Your task to perform on an android device: Open Amazon Image 0: 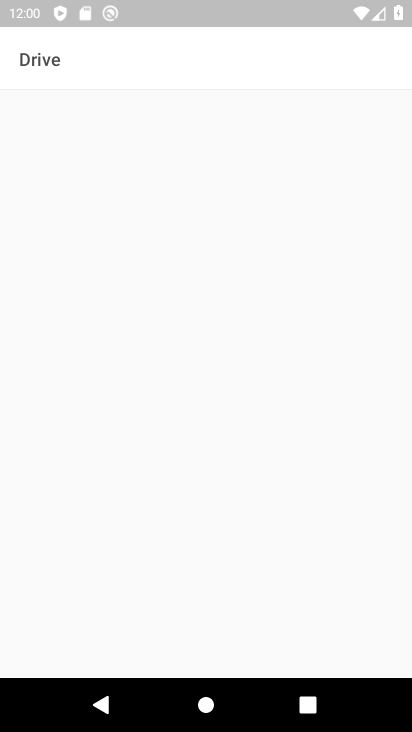
Step 0: press home button
Your task to perform on an android device: Open Amazon Image 1: 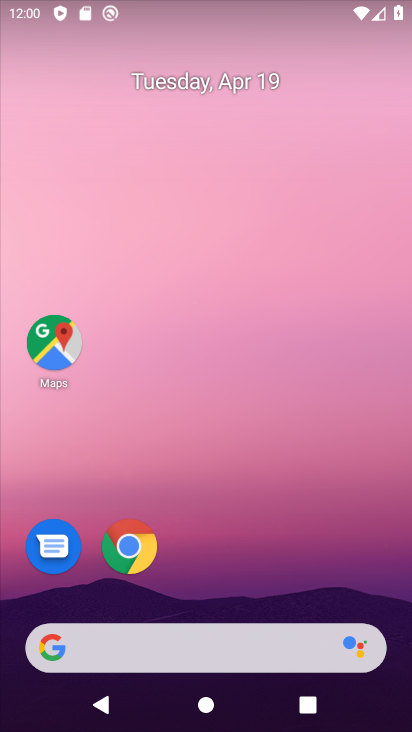
Step 1: click (126, 543)
Your task to perform on an android device: Open Amazon Image 2: 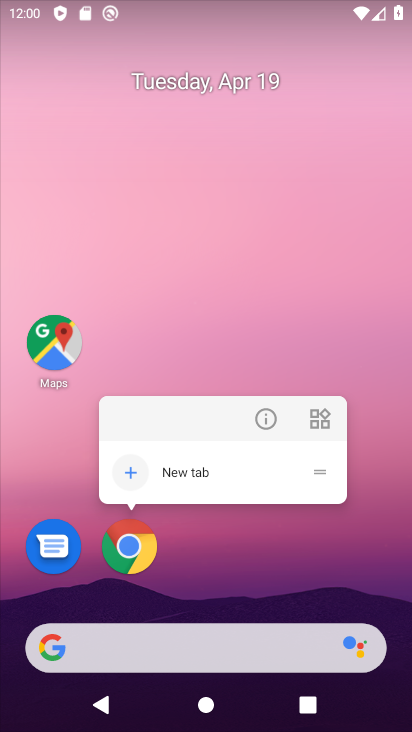
Step 2: drag from (177, 557) to (261, 86)
Your task to perform on an android device: Open Amazon Image 3: 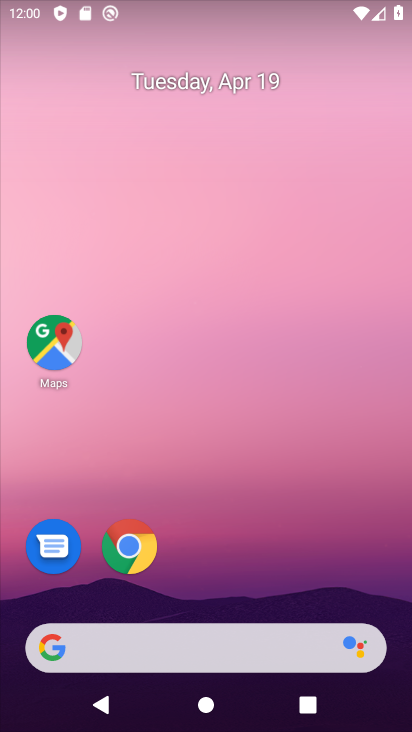
Step 3: drag from (239, 587) to (250, 5)
Your task to perform on an android device: Open Amazon Image 4: 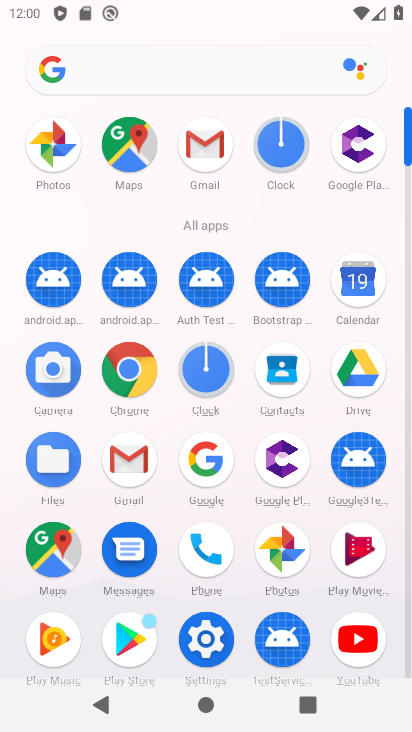
Step 4: click (128, 358)
Your task to perform on an android device: Open Amazon Image 5: 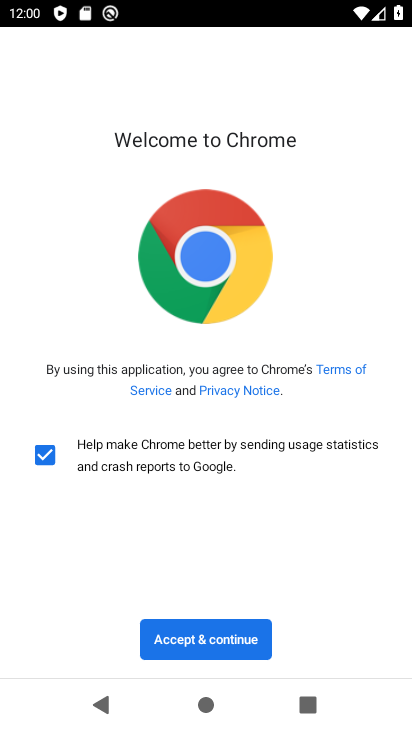
Step 5: click (208, 631)
Your task to perform on an android device: Open Amazon Image 6: 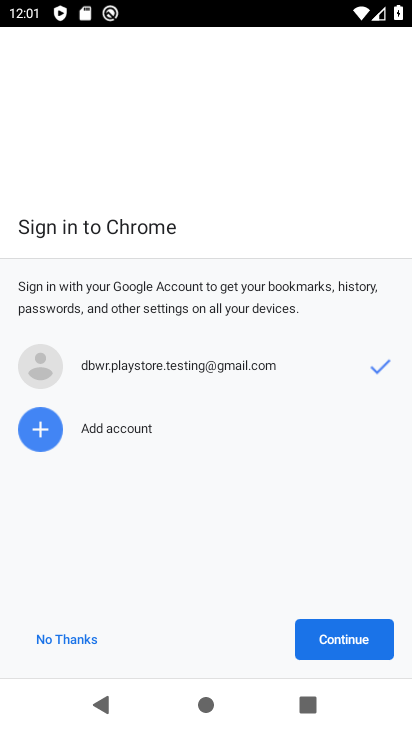
Step 6: click (338, 641)
Your task to perform on an android device: Open Amazon Image 7: 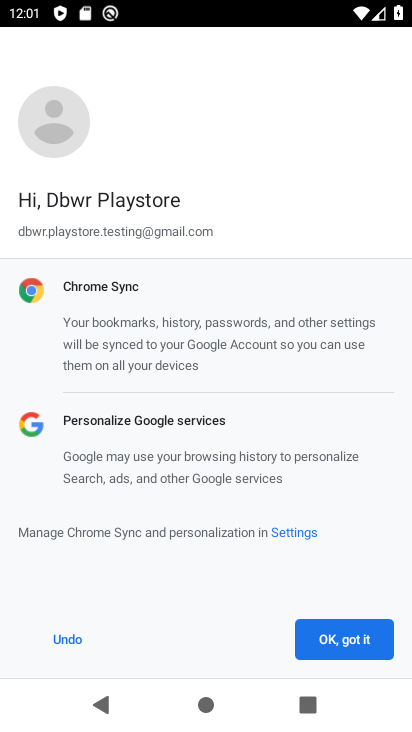
Step 7: click (347, 631)
Your task to perform on an android device: Open Amazon Image 8: 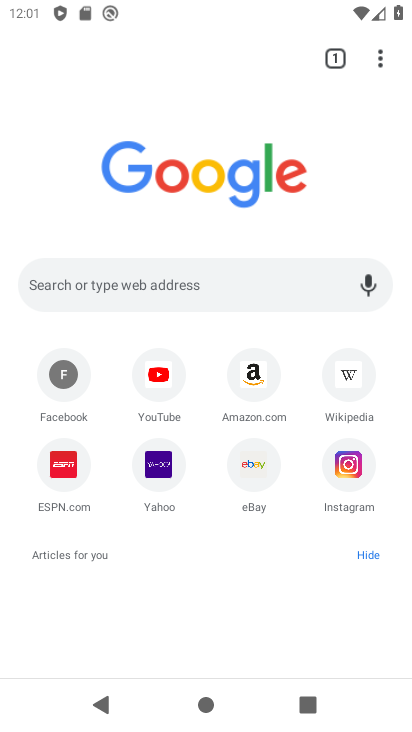
Step 8: click (254, 377)
Your task to perform on an android device: Open Amazon Image 9: 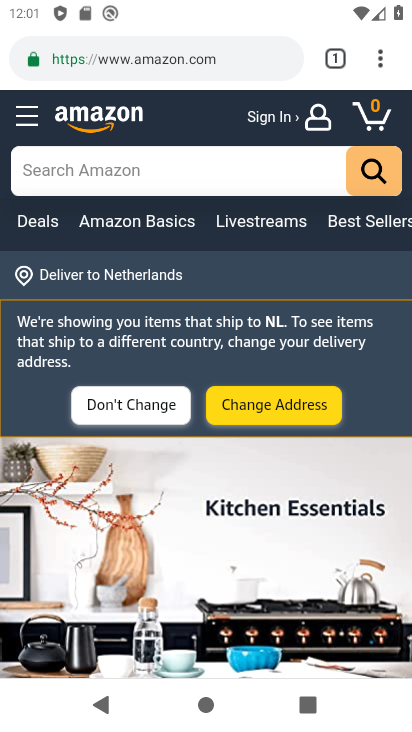
Step 9: task complete